Your task to perform on an android device: What's the weather going to be this weekend? Image 0: 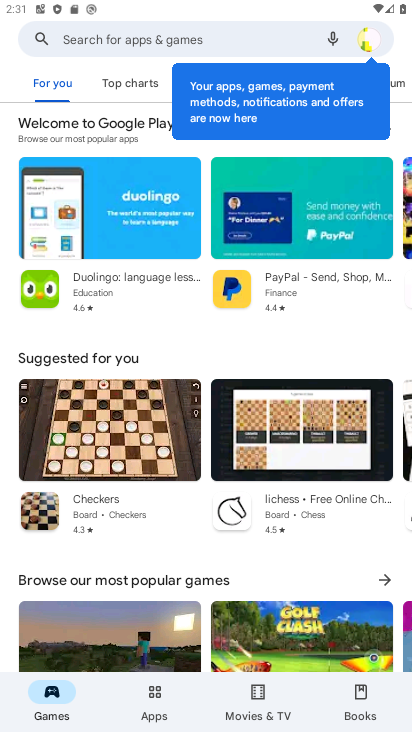
Step 0: press home button
Your task to perform on an android device: What's the weather going to be this weekend? Image 1: 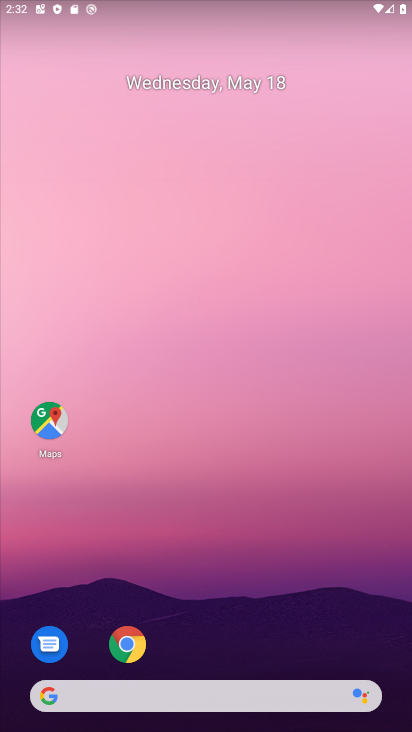
Step 1: click (222, 698)
Your task to perform on an android device: What's the weather going to be this weekend? Image 2: 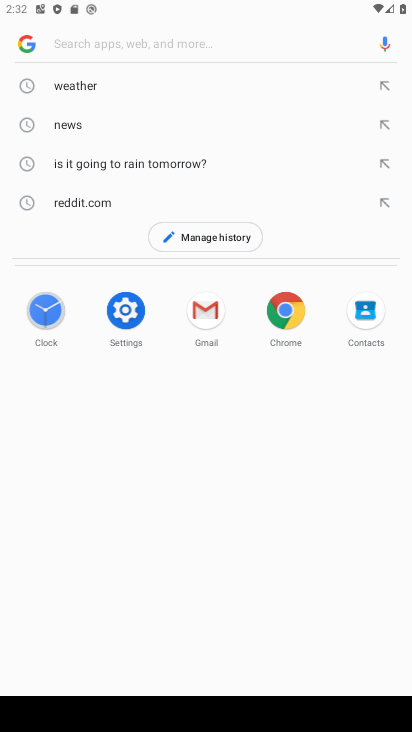
Step 2: type "What's the weather going to be this weekend?"
Your task to perform on an android device: What's the weather going to be this weekend? Image 3: 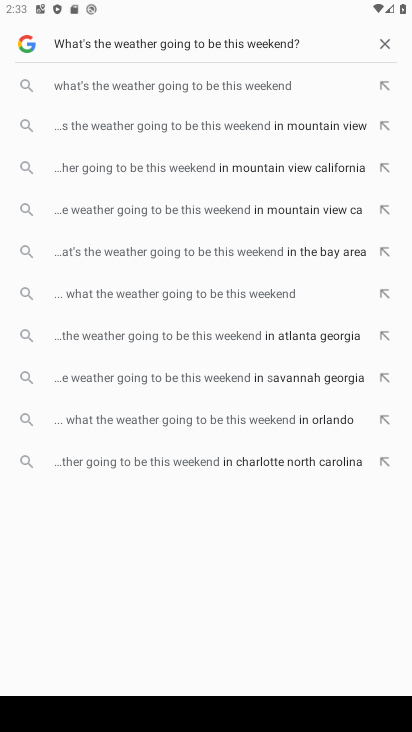
Step 3: click (234, 71)
Your task to perform on an android device: What's the weather going to be this weekend? Image 4: 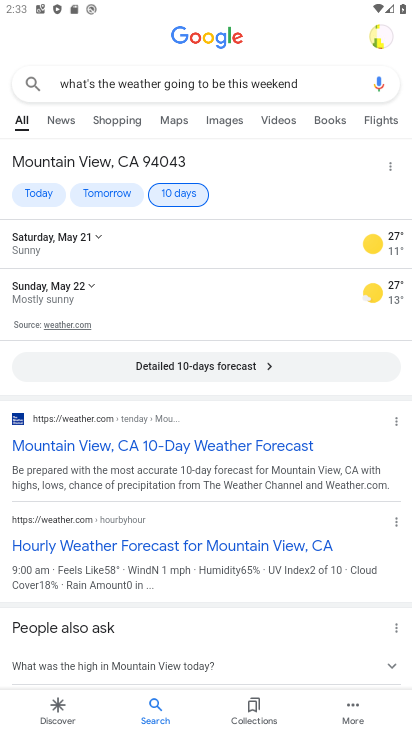
Step 4: task complete